Your task to perform on an android device: set the stopwatch Image 0: 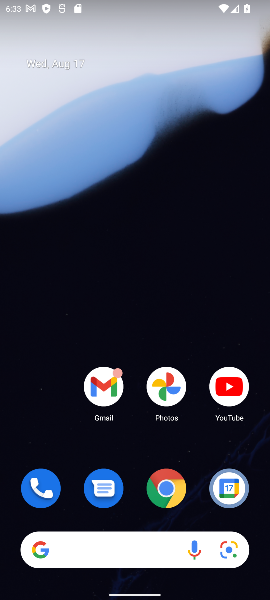
Step 0: drag from (97, 521) to (176, 71)
Your task to perform on an android device: set the stopwatch Image 1: 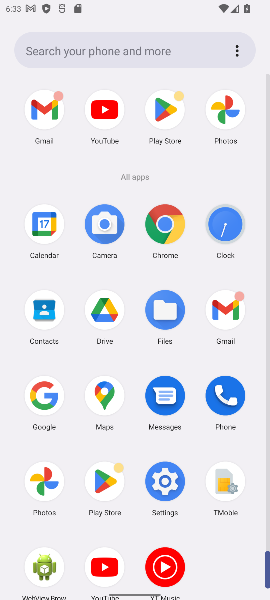
Step 1: click (225, 226)
Your task to perform on an android device: set the stopwatch Image 2: 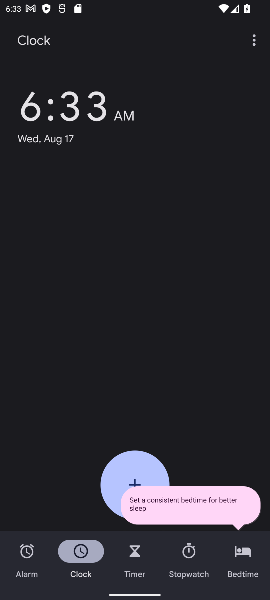
Step 2: click (190, 565)
Your task to perform on an android device: set the stopwatch Image 3: 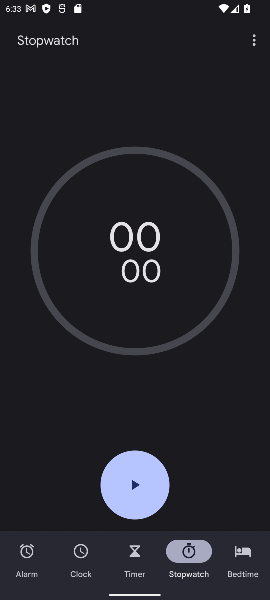
Step 3: click (125, 483)
Your task to perform on an android device: set the stopwatch Image 4: 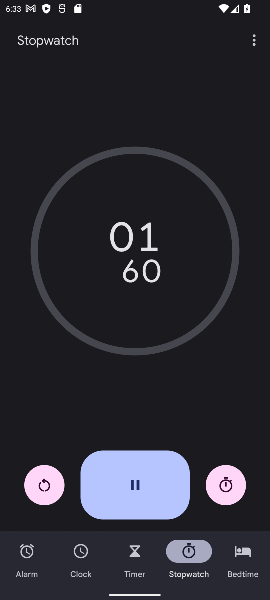
Step 4: task complete